Your task to perform on an android device: turn off picture-in-picture Image 0: 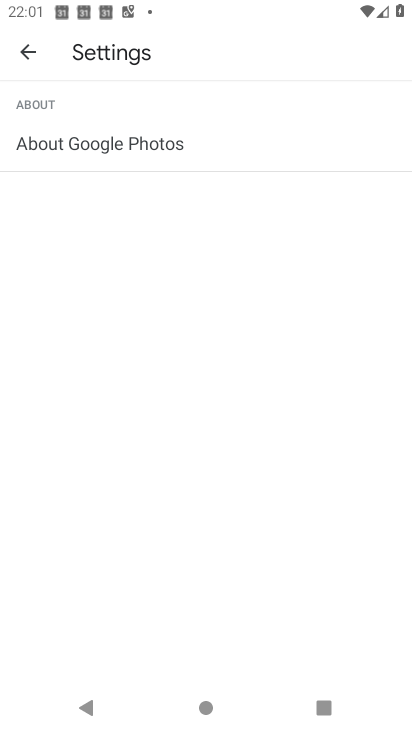
Step 0: press home button
Your task to perform on an android device: turn off picture-in-picture Image 1: 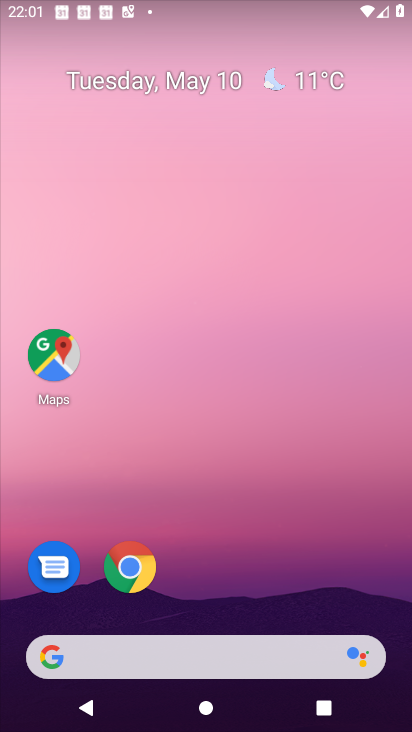
Step 1: click (137, 562)
Your task to perform on an android device: turn off picture-in-picture Image 2: 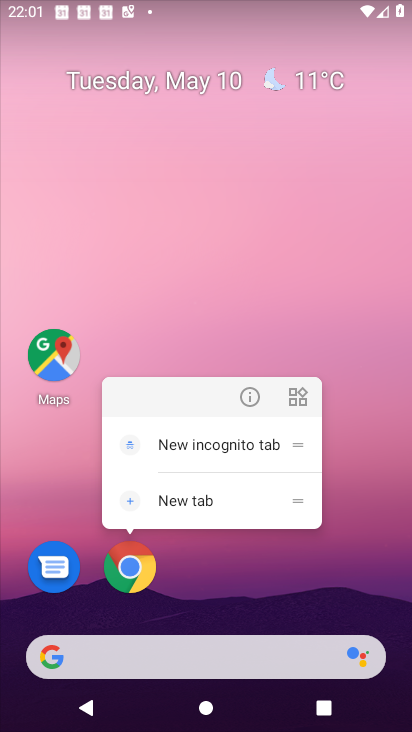
Step 2: click (253, 397)
Your task to perform on an android device: turn off picture-in-picture Image 3: 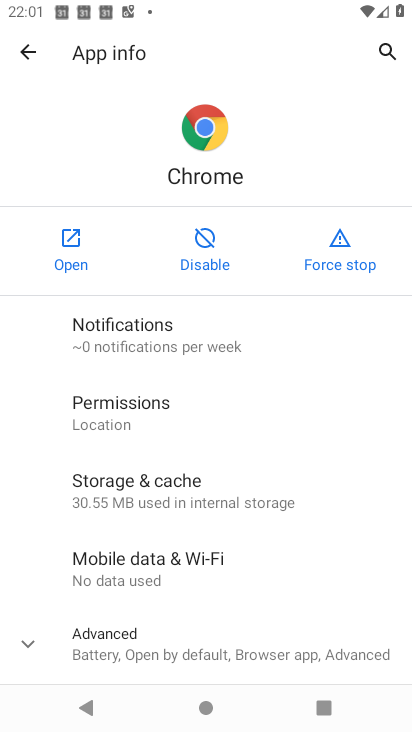
Step 3: drag from (200, 627) to (160, 343)
Your task to perform on an android device: turn off picture-in-picture Image 4: 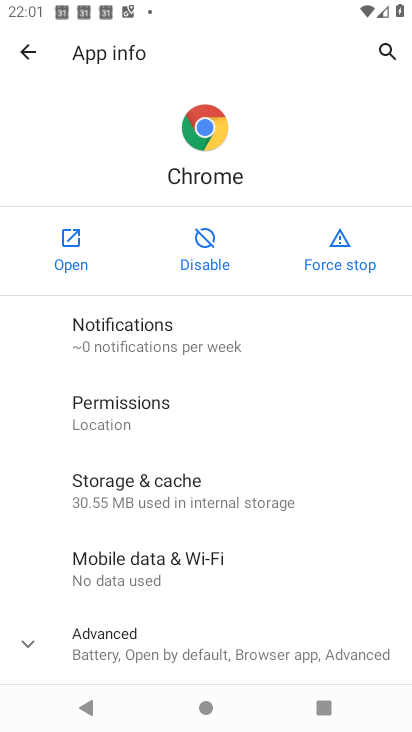
Step 4: click (116, 628)
Your task to perform on an android device: turn off picture-in-picture Image 5: 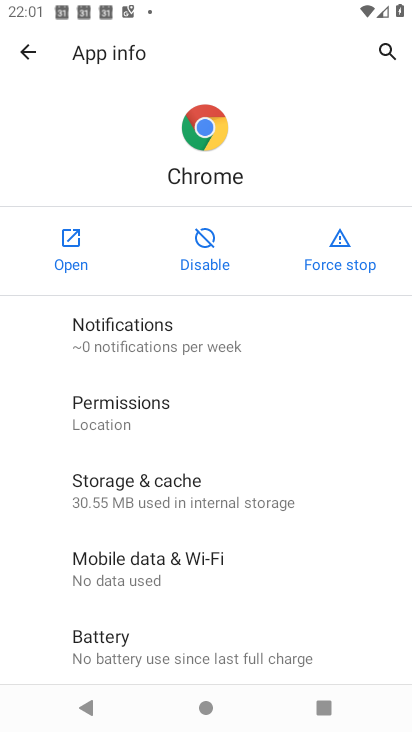
Step 5: drag from (149, 672) to (151, 347)
Your task to perform on an android device: turn off picture-in-picture Image 6: 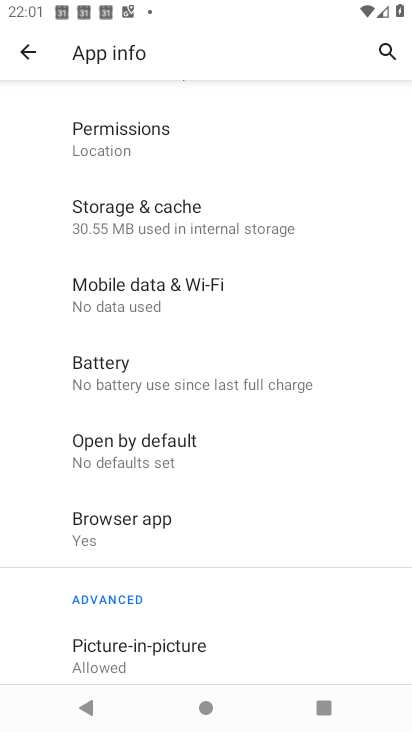
Step 6: click (125, 652)
Your task to perform on an android device: turn off picture-in-picture Image 7: 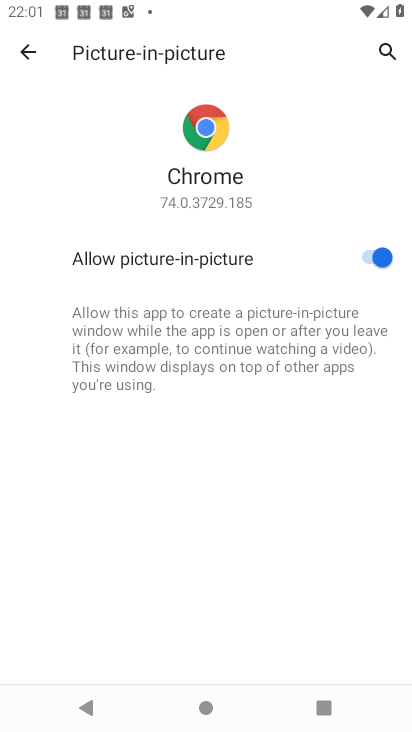
Step 7: click (368, 256)
Your task to perform on an android device: turn off picture-in-picture Image 8: 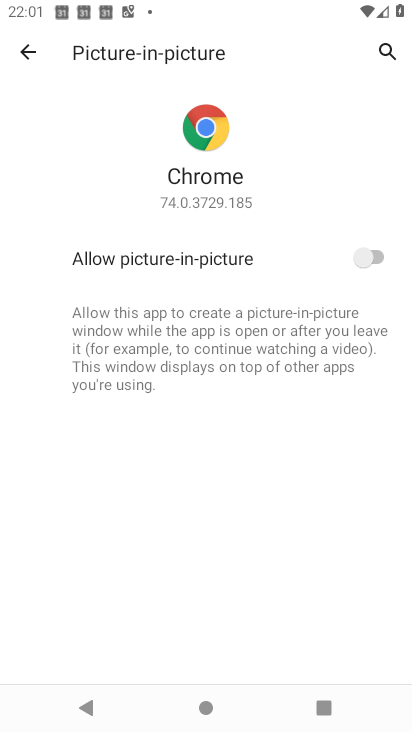
Step 8: task complete